Your task to perform on an android device: Search for Mexican restaurants on Maps Image 0: 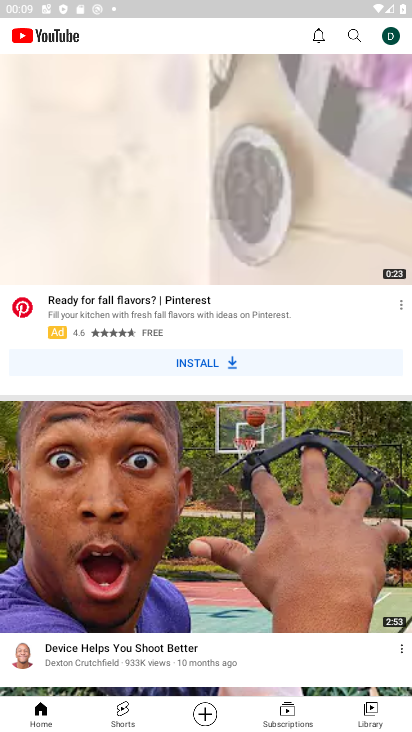
Step 0: press home button
Your task to perform on an android device: Search for Mexican restaurants on Maps Image 1: 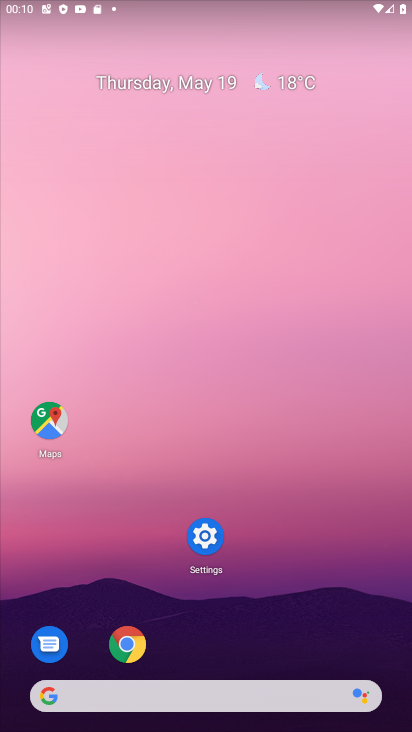
Step 1: click (47, 424)
Your task to perform on an android device: Search for Mexican restaurants on Maps Image 2: 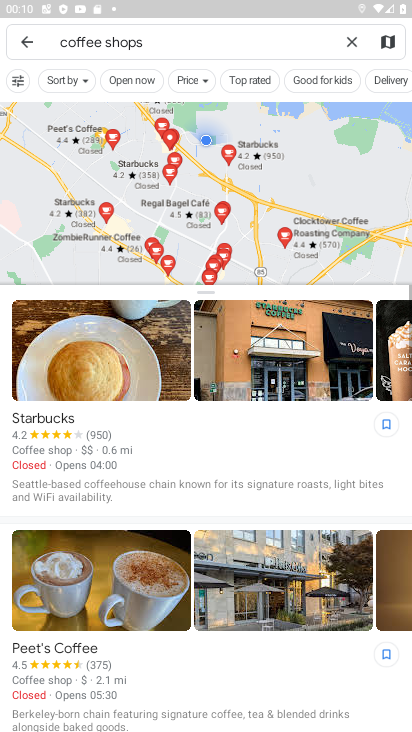
Step 2: click (320, 49)
Your task to perform on an android device: Search for Mexican restaurants on Maps Image 3: 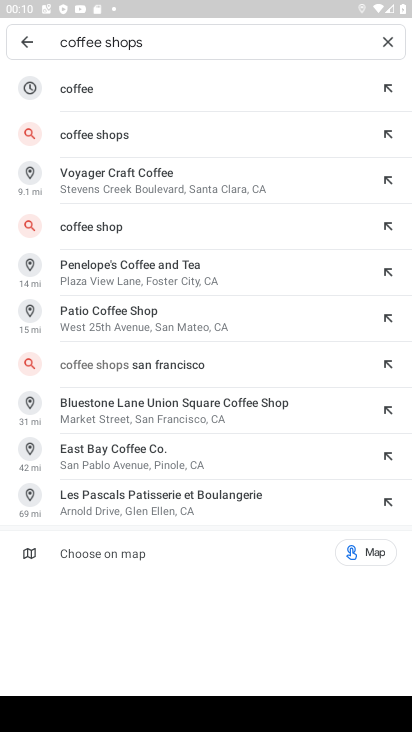
Step 3: click (390, 42)
Your task to perform on an android device: Search for Mexican restaurants on Maps Image 4: 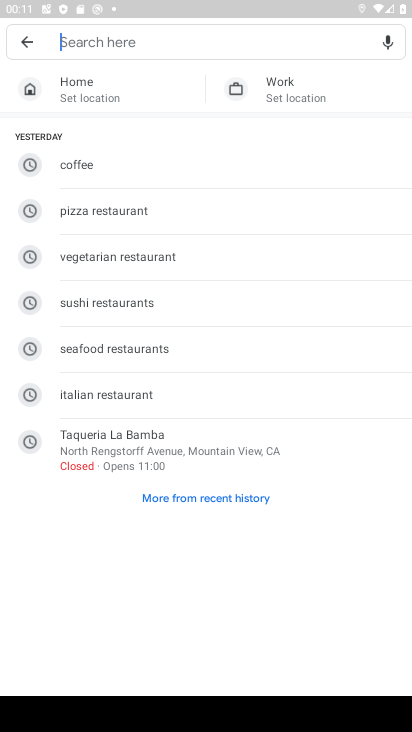
Step 4: type "Mexican restaurants"
Your task to perform on an android device: Search for Mexican restaurants on Maps Image 5: 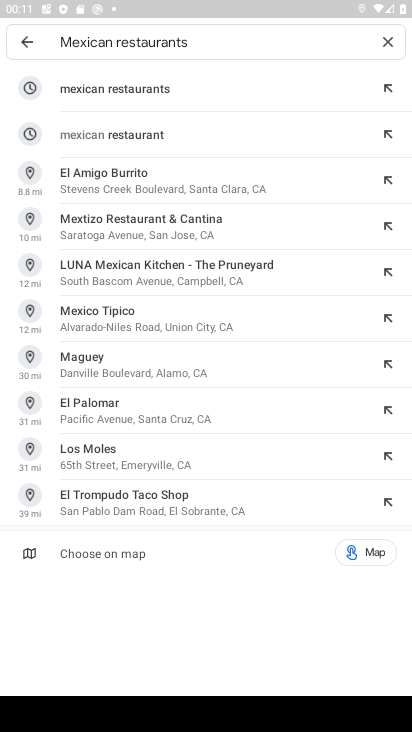
Step 5: click (191, 85)
Your task to perform on an android device: Search for Mexican restaurants on Maps Image 6: 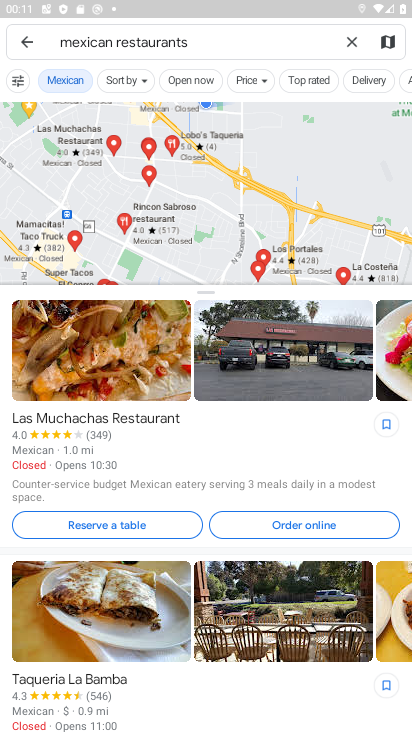
Step 6: task complete